Your task to perform on an android device: toggle notifications settings in the gmail app Image 0: 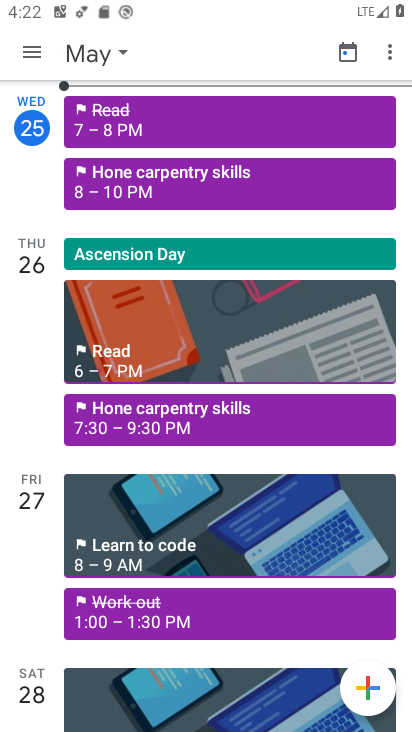
Step 0: press home button
Your task to perform on an android device: toggle notifications settings in the gmail app Image 1: 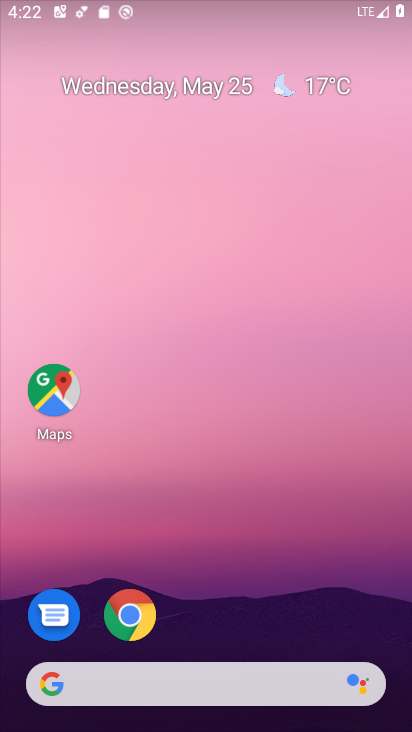
Step 1: drag from (232, 372) to (168, 44)
Your task to perform on an android device: toggle notifications settings in the gmail app Image 2: 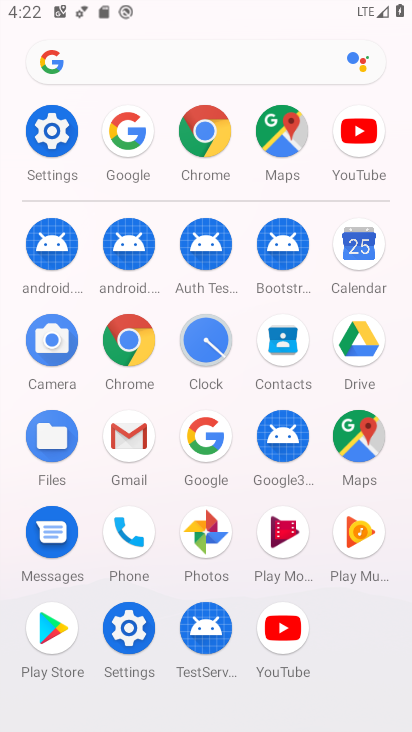
Step 2: click (126, 437)
Your task to perform on an android device: toggle notifications settings in the gmail app Image 3: 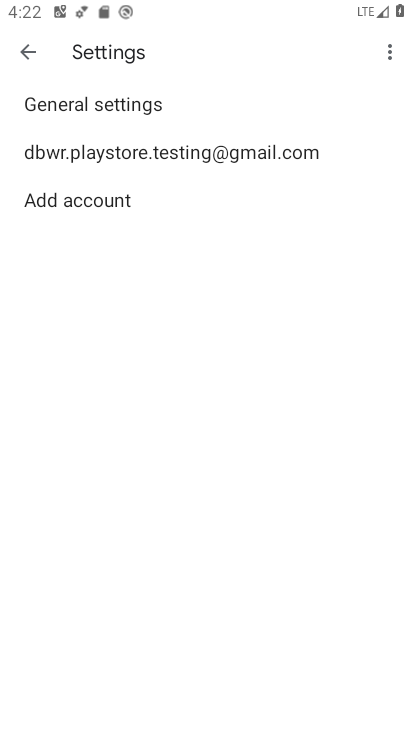
Step 3: click (101, 149)
Your task to perform on an android device: toggle notifications settings in the gmail app Image 4: 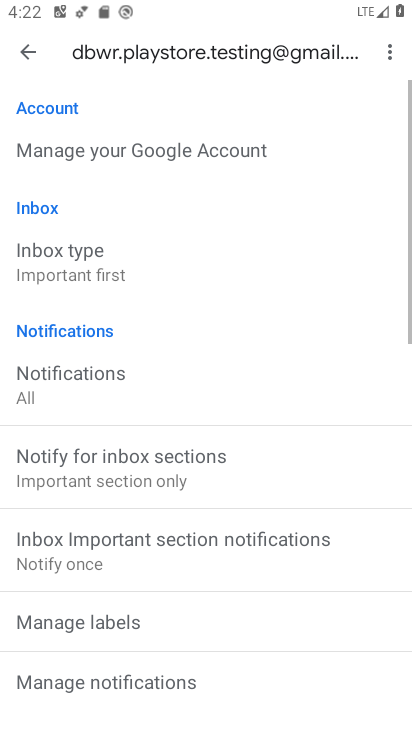
Step 4: click (136, 389)
Your task to perform on an android device: toggle notifications settings in the gmail app Image 5: 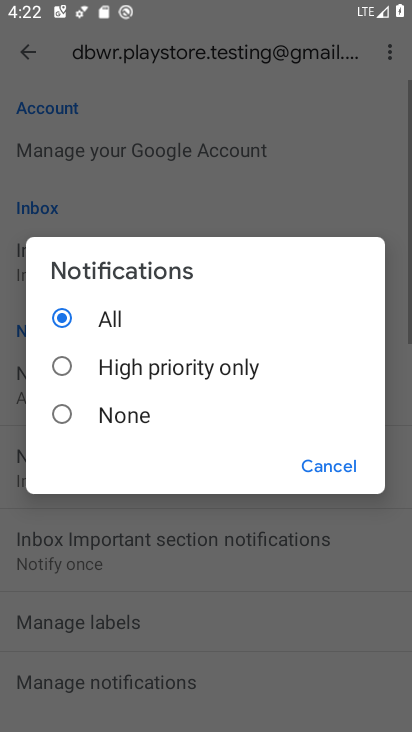
Step 5: click (133, 420)
Your task to perform on an android device: toggle notifications settings in the gmail app Image 6: 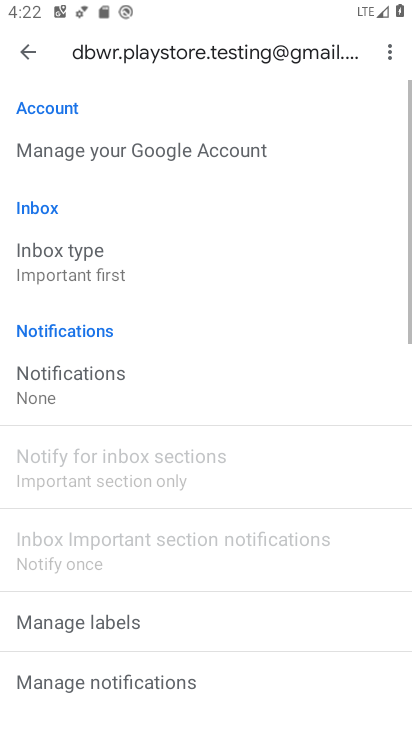
Step 6: task complete